Your task to perform on an android device: Open the calendar app, open the side menu, and click the "Day" option Image 0: 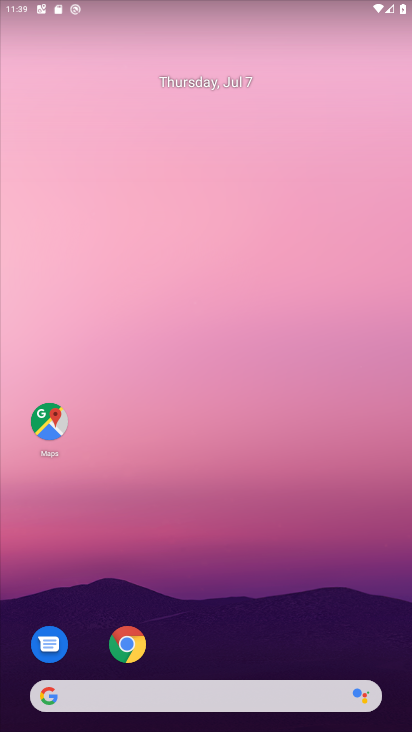
Step 0: drag from (84, 491) to (97, 52)
Your task to perform on an android device: Open the calendar app, open the side menu, and click the "Day" option Image 1: 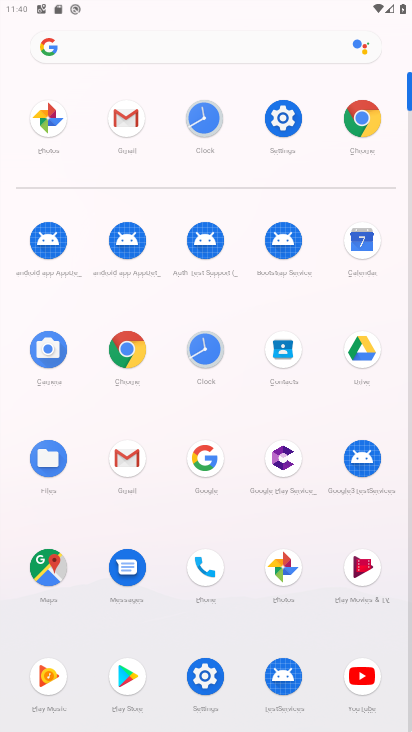
Step 1: click (361, 244)
Your task to perform on an android device: Open the calendar app, open the side menu, and click the "Day" option Image 2: 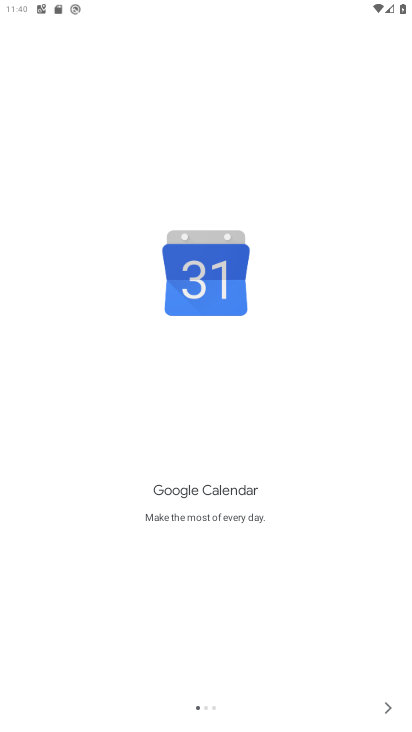
Step 2: click (390, 706)
Your task to perform on an android device: Open the calendar app, open the side menu, and click the "Day" option Image 3: 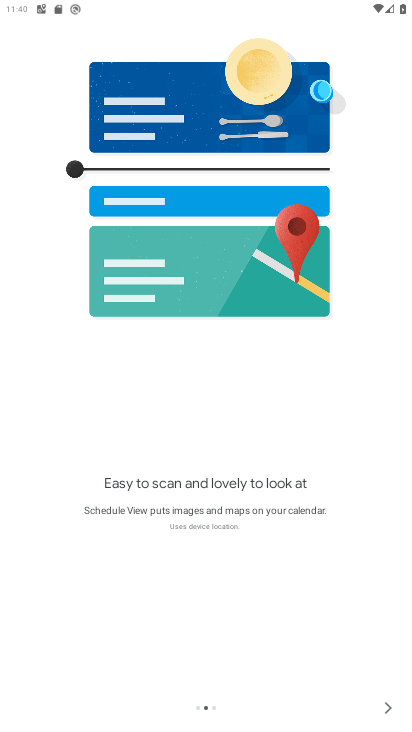
Step 3: click (383, 708)
Your task to perform on an android device: Open the calendar app, open the side menu, and click the "Day" option Image 4: 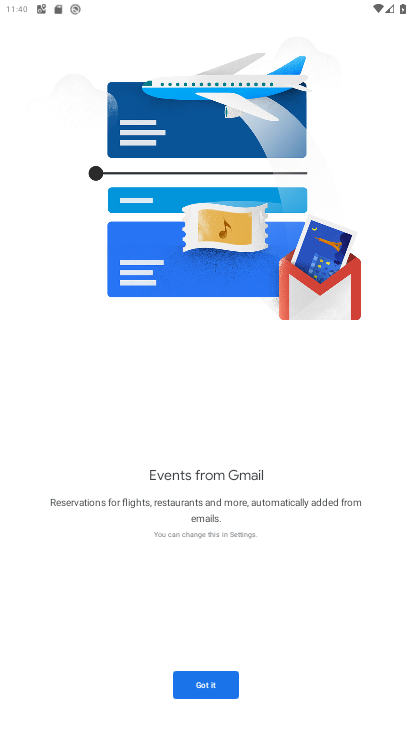
Step 4: click (225, 685)
Your task to perform on an android device: Open the calendar app, open the side menu, and click the "Day" option Image 5: 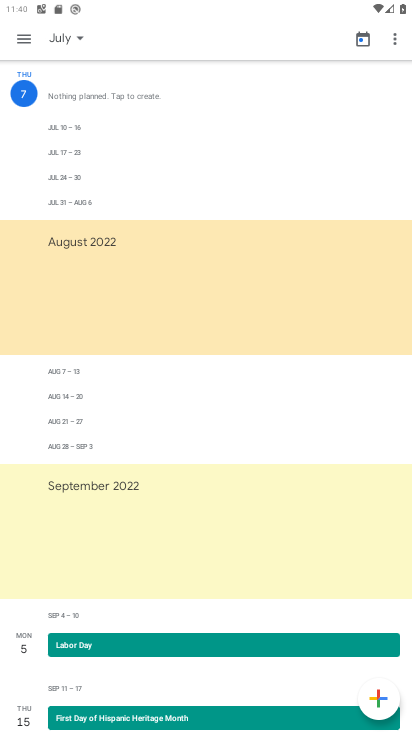
Step 5: click (30, 40)
Your task to perform on an android device: Open the calendar app, open the side menu, and click the "Day" option Image 6: 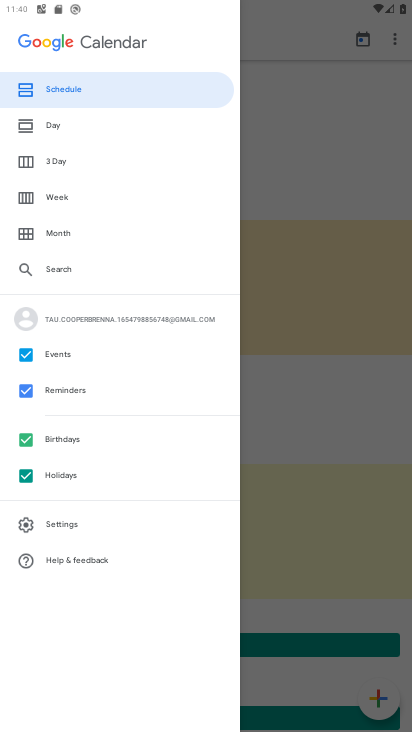
Step 6: click (62, 129)
Your task to perform on an android device: Open the calendar app, open the side menu, and click the "Day" option Image 7: 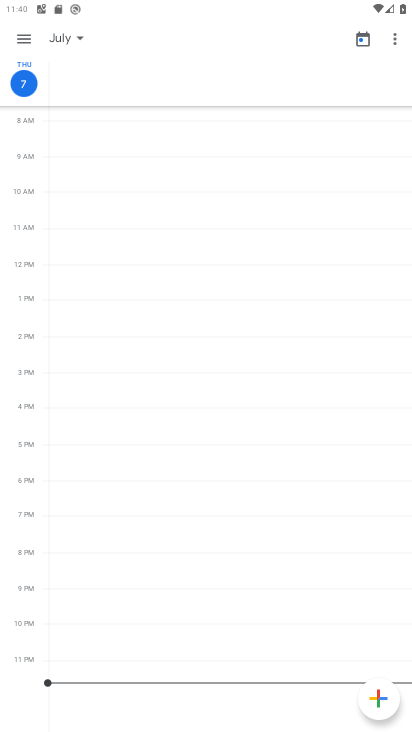
Step 7: task complete